Your task to perform on an android device: Open privacy settings Image 0: 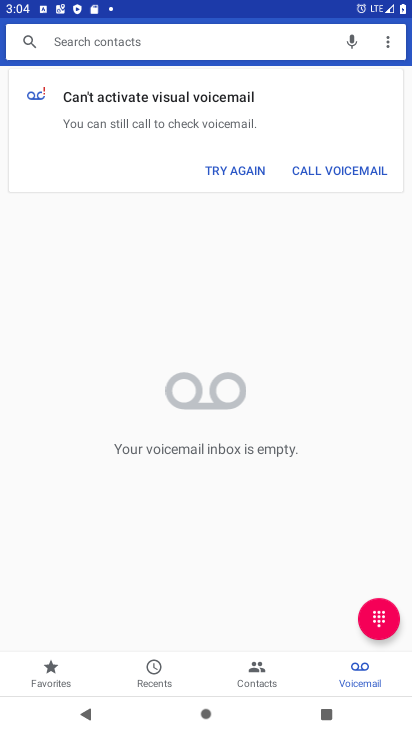
Step 0: press home button
Your task to perform on an android device: Open privacy settings Image 1: 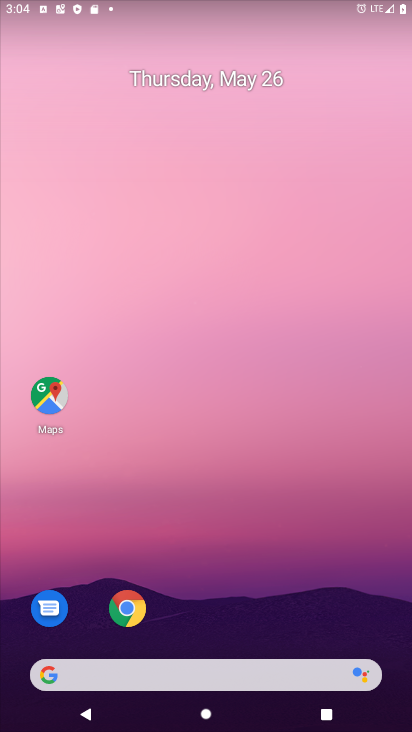
Step 1: drag from (384, 616) to (319, 62)
Your task to perform on an android device: Open privacy settings Image 2: 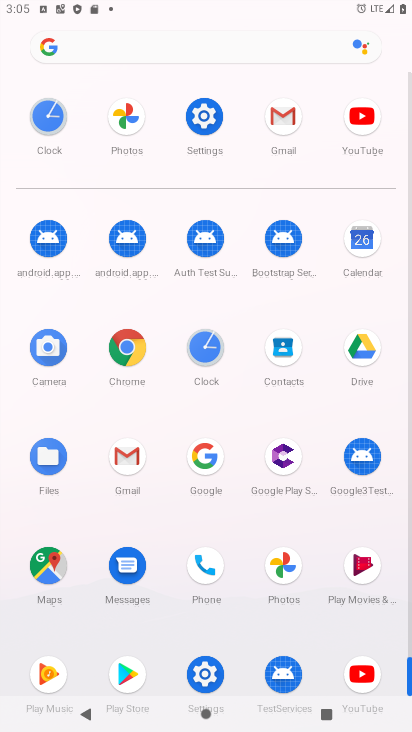
Step 2: click (205, 677)
Your task to perform on an android device: Open privacy settings Image 3: 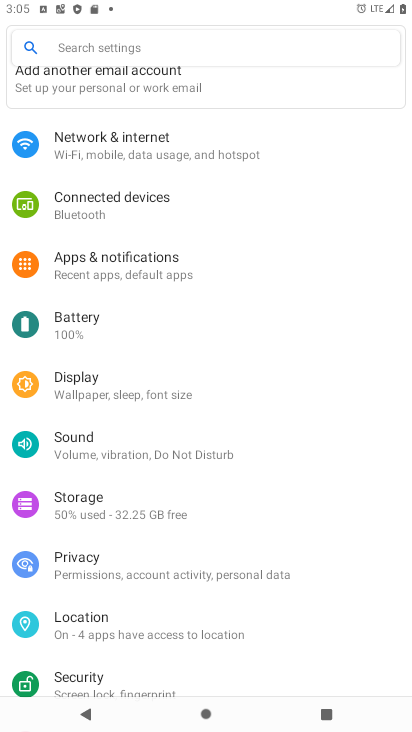
Step 3: click (85, 560)
Your task to perform on an android device: Open privacy settings Image 4: 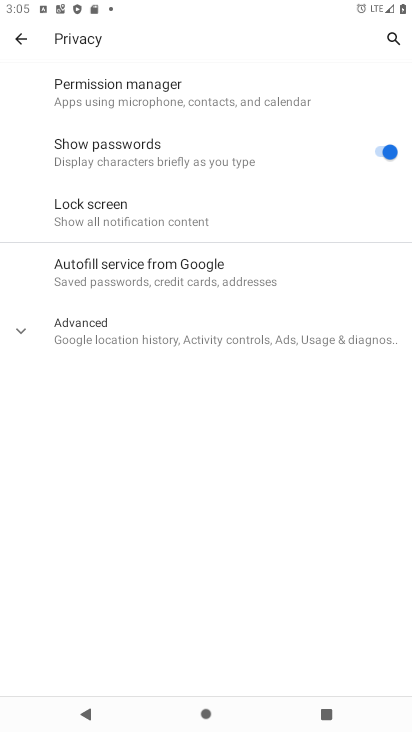
Step 4: click (21, 329)
Your task to perform on an android device: Open privacy settings Image 5: 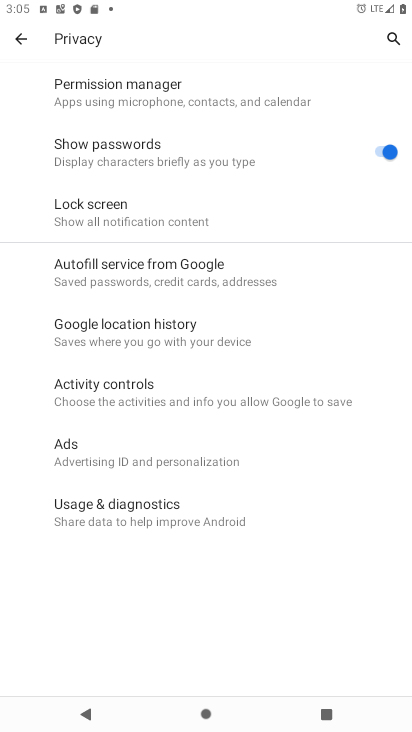
Step 5: task complete